Your task to perform on an android device: open the mobile data screen to see how much data has been used Image 0: 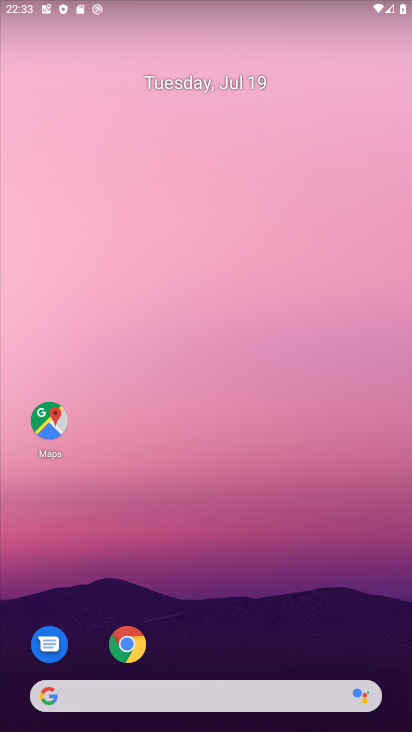
Step 0: drag from (226, 729) to (200, 478)
Your task to perform on an android device: open the mobile data screen to see how much data has been used Image 1: 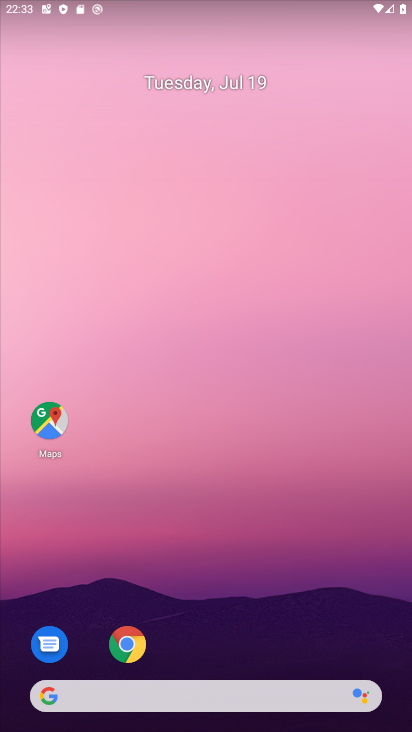
Step 1: drag from (174, 725) to (142, 325)
Your task to perform on an android device: open the mobile data screen to see how much data has been used Image 2: 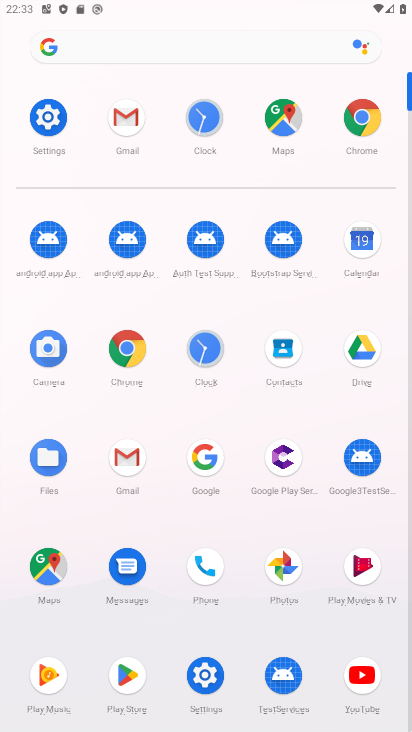
Step 2: click (42, 118)
Your task to perform on an android device: open the mobile data screen to see how much data has been used Image 3: 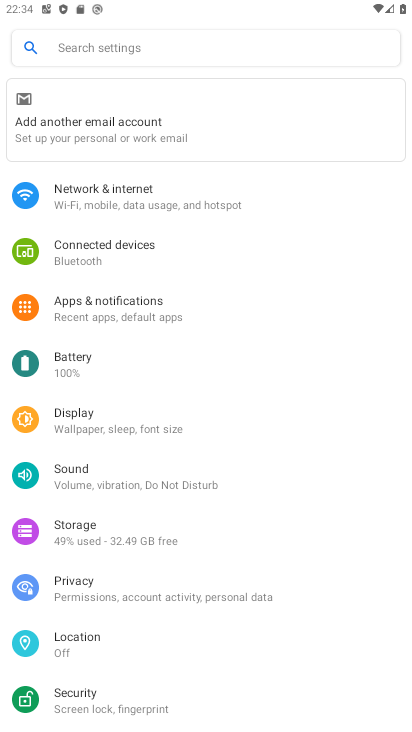
Step 3: click (76, 196)
Your task to perform on an android device: open the mobile data screen to see how much data has been used Image 4: 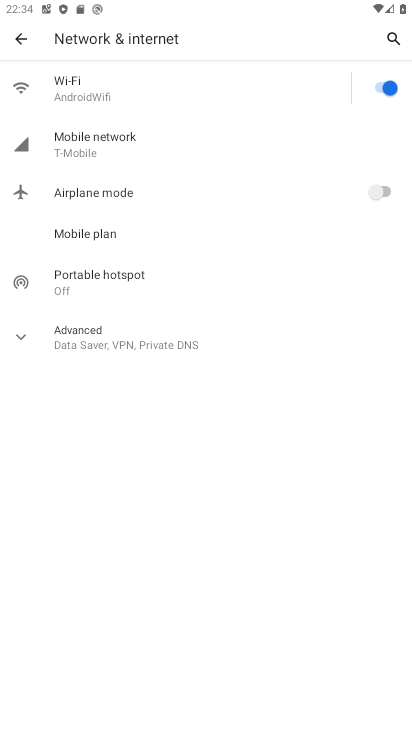
Step 4: click (76, 141)
Your task to perform on an android device: open the mobile data screen to see how much data has been used Image 5: 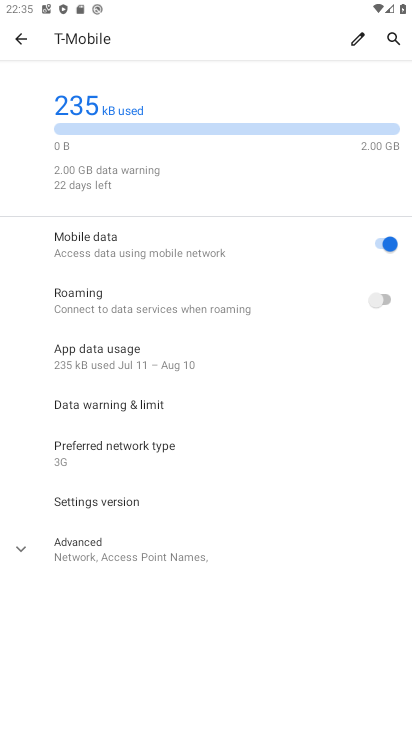
Step 5: task complete